Your task to perform on an android device: Go to Android settings Image 0: 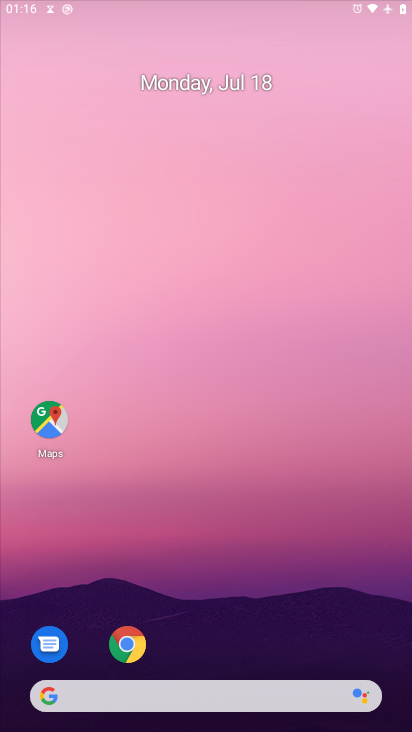
Step 0: press home button
Your task to perform on an android device: Go to Android settings Image 1: 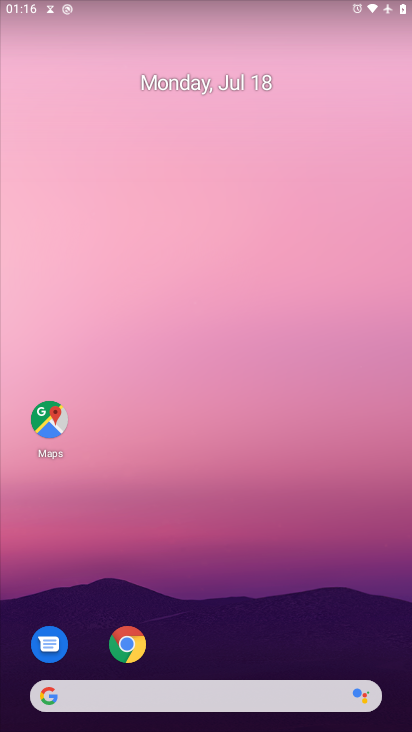
Step 1: drag from (257, 480) to (7, 34)
Your task to perform on an android device: Go to Android settings Image 2: 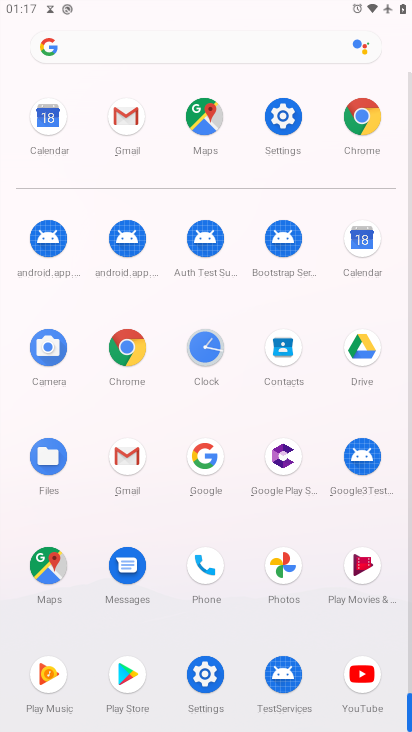
Step 2: click (282, 117)
Your task to perform on an android device: Go to Android settings Image 3: 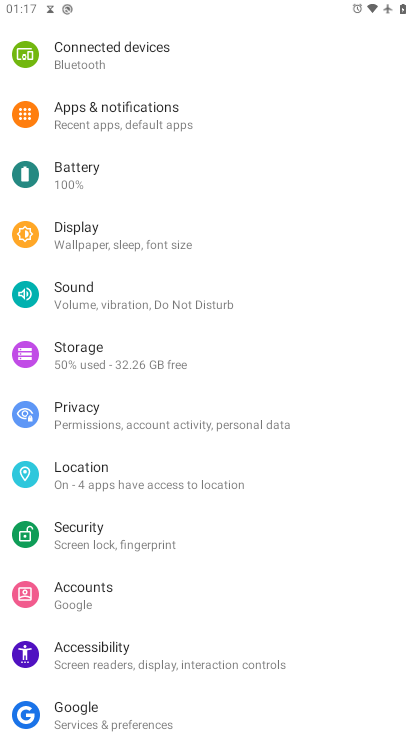
Step 3: task complete